Your task to perform on an android device: Open battery settings Image 0: 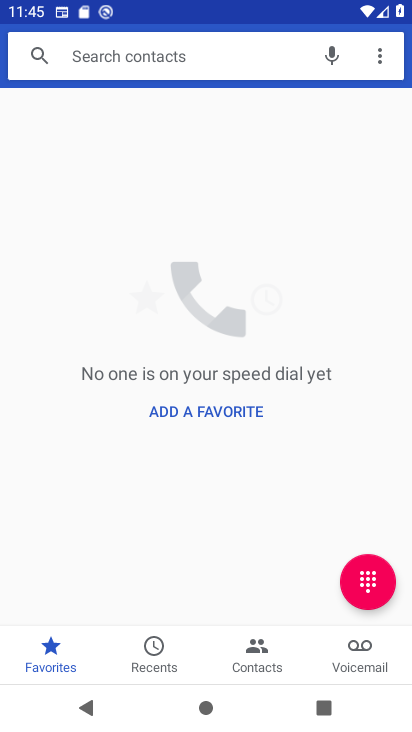
Step 0: press home button
Your task to perform on an android device: Open battery settings Image 1: 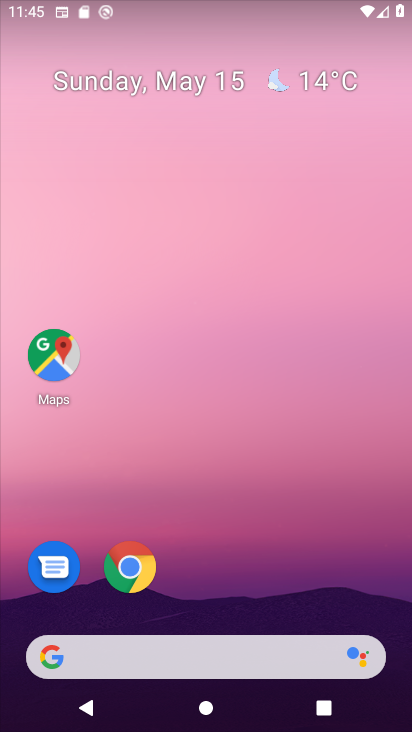
Step 1: drag from (182, 615) to (138, 0)
Your task to perform on an android device: Open battery settings Image 2: 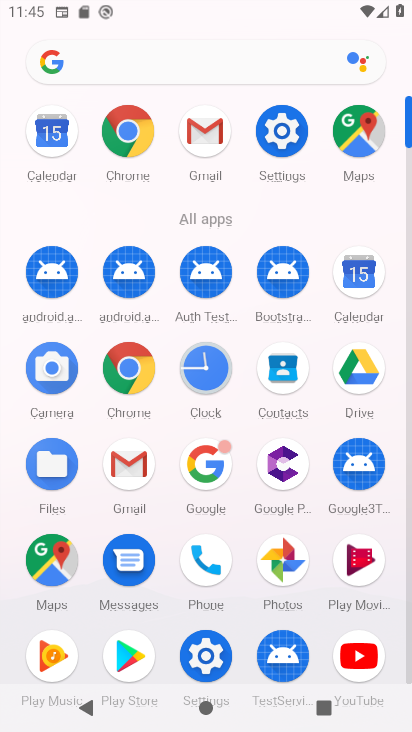
Step 2: click (277, 155)
Your task to perform on an android device: Open battery settings Image 3: 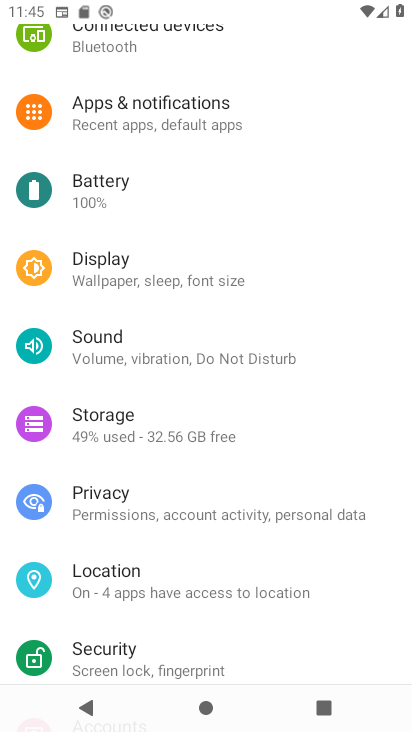
Step 3: click (98, 199)
Your task to perform on an android device: Open battery settings Image 4: 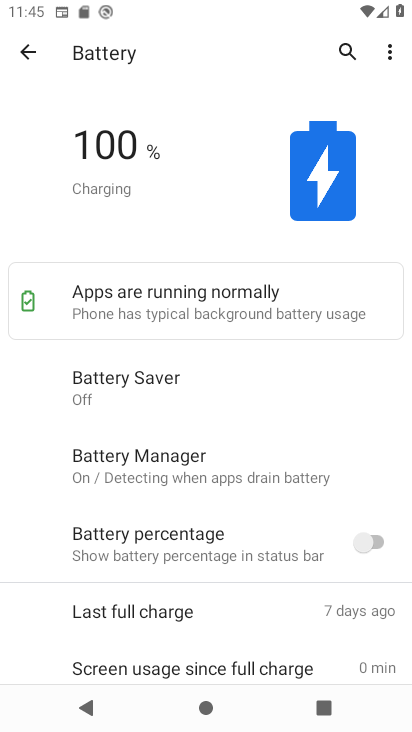
Step 4: task complete